Your task to perform on an android device: install app "Mercado Libre" Image 0: 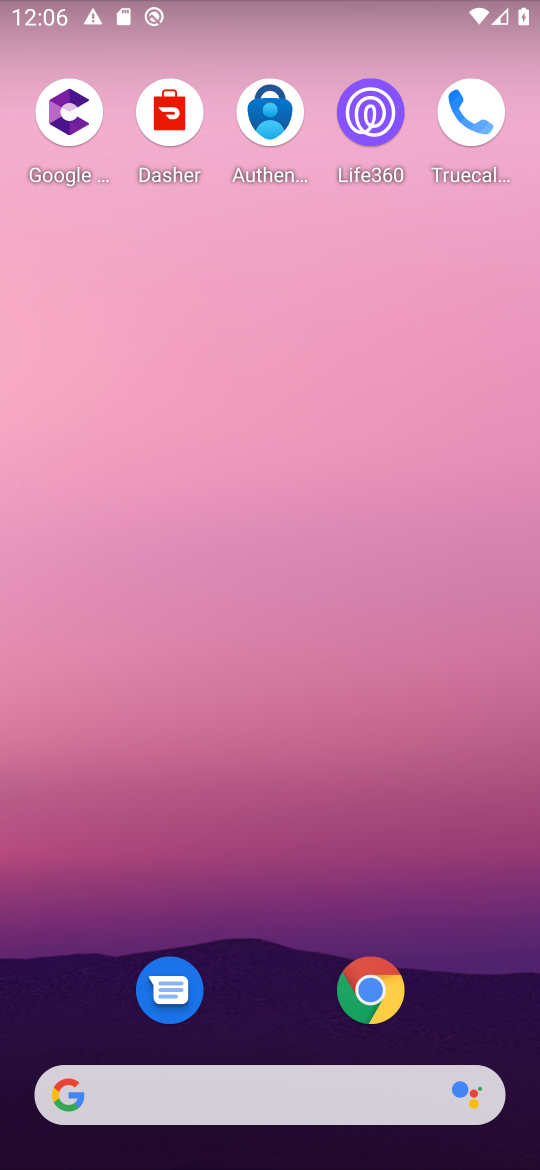
Step 0: drag from (263, 978) to (256, 359)
Your task to perform on an android device: install app "Mercado Libre" Image 1: 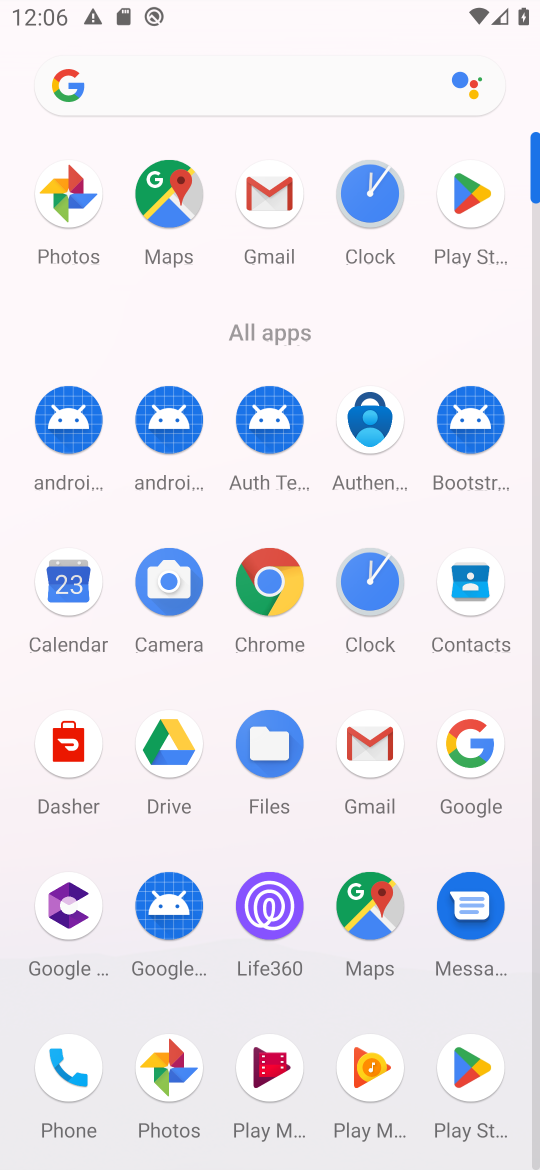
Step 1: click (462, 180)
Your task to perform on an android device: install app "Mercado Libre" Image 2: 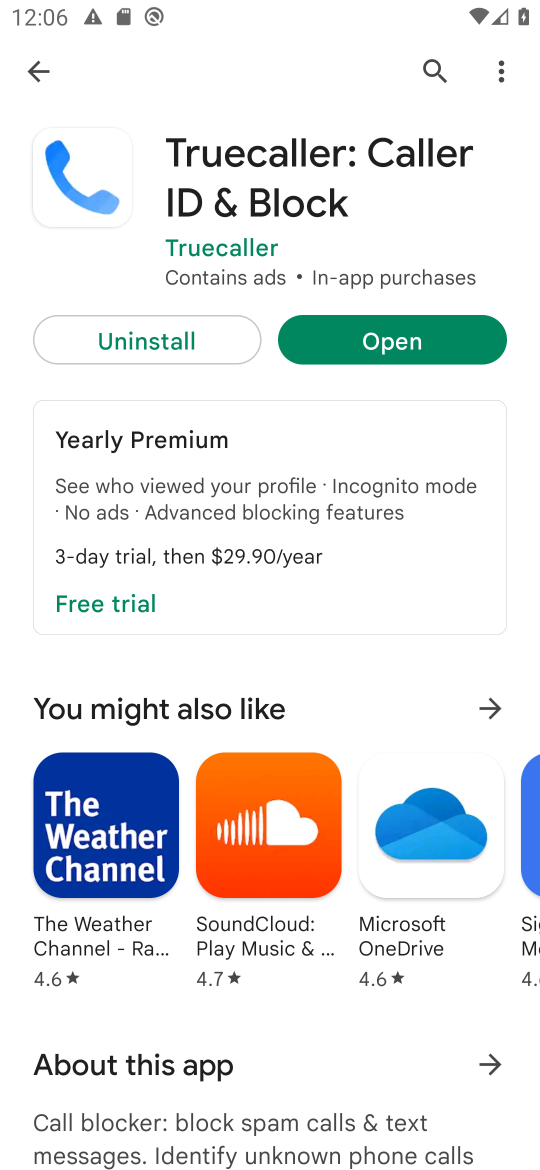
Step 2: click (56, 59)
Your task to perform on an android device: install app "Mercado Libre" Image 3: 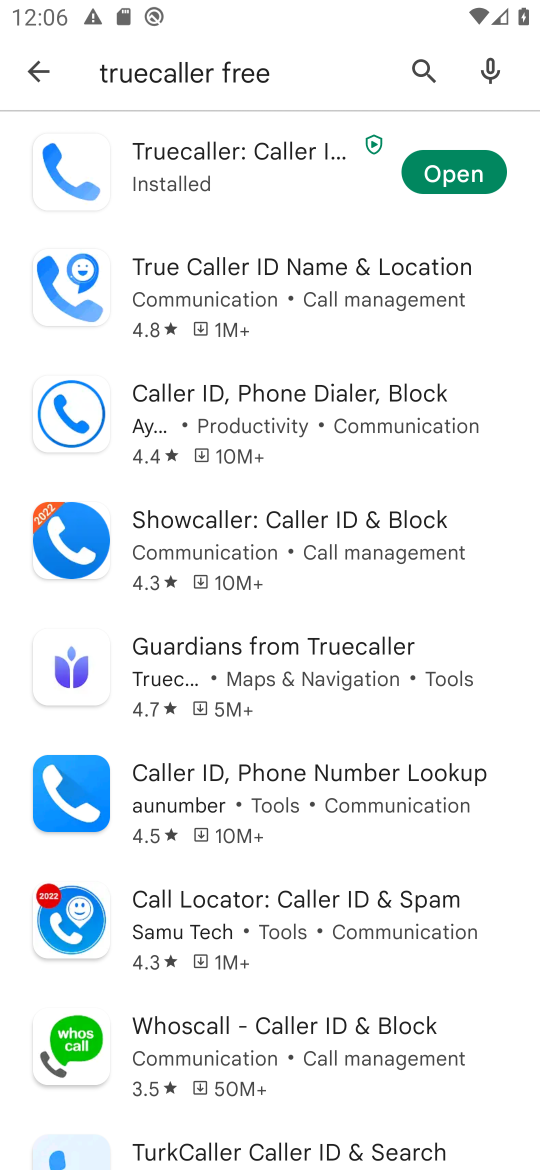
Step 3: click (31, 59)
Your task to perform on an android device: install app "Mercado Libre" Image 4: 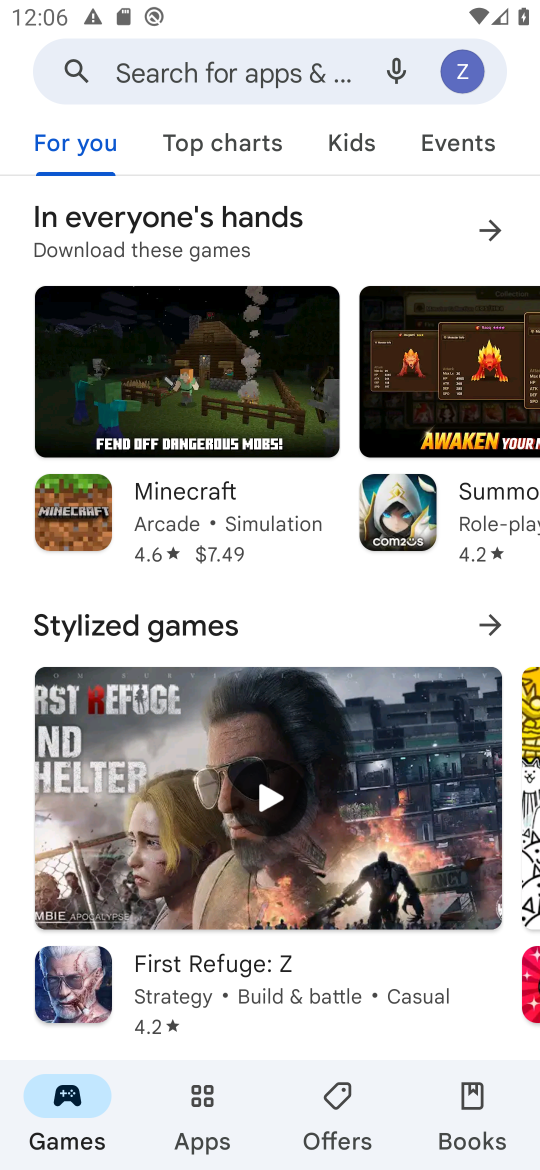
Step 4: click (272, 53)
Your task to perform on an android device: install app "Mercado Libre" Image 5: 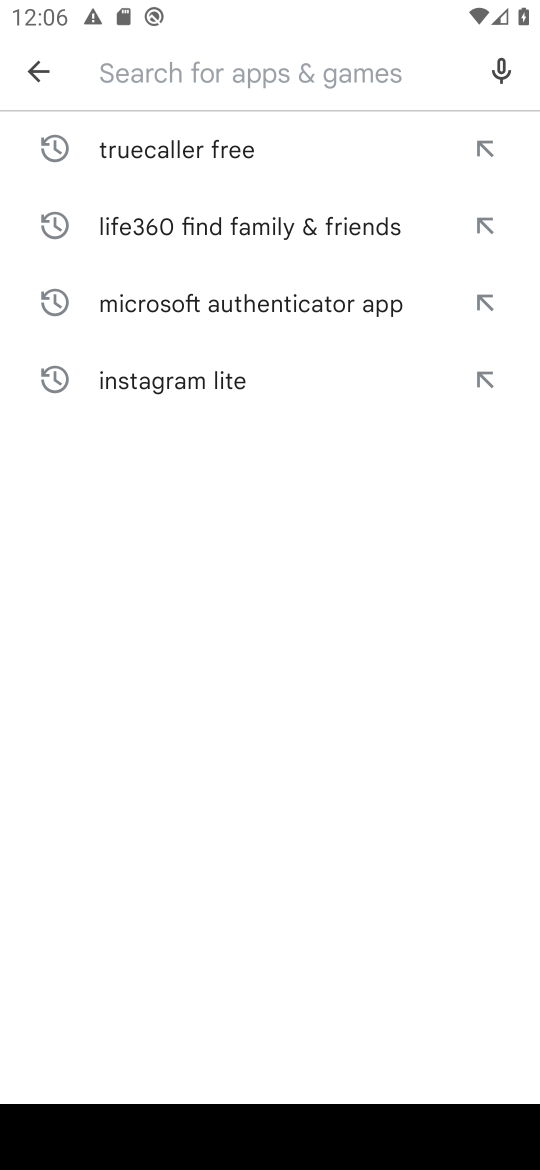
Step 5: type "Mercado Libre "
Your task to perform on an android device: install app "Mercado Libre" Image 6: 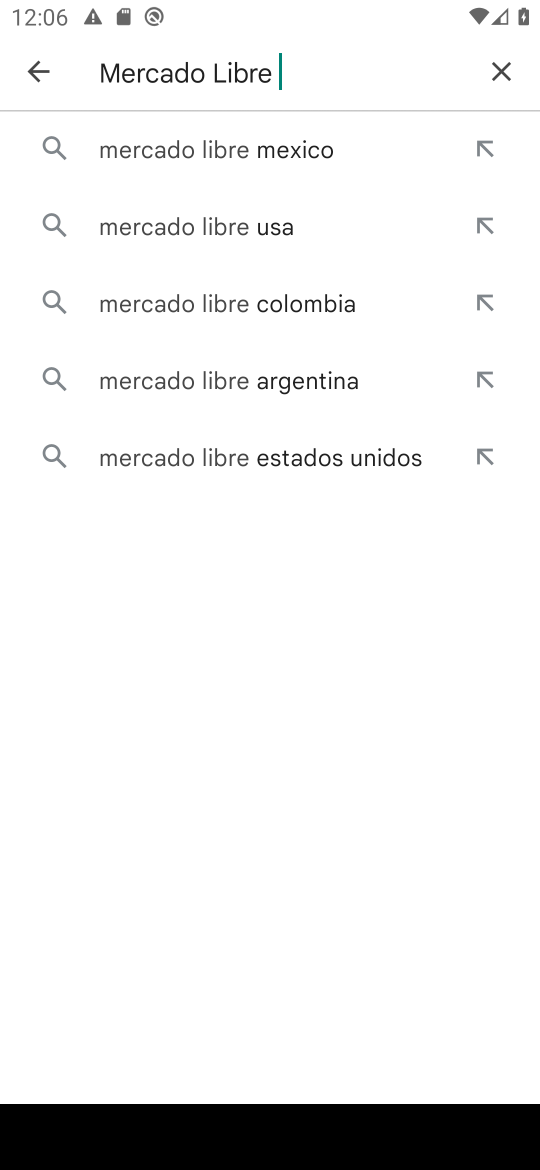
Step 6: click (212, 144)
Your task to perform on an android device: install app "Mercado Libre" Image 7: 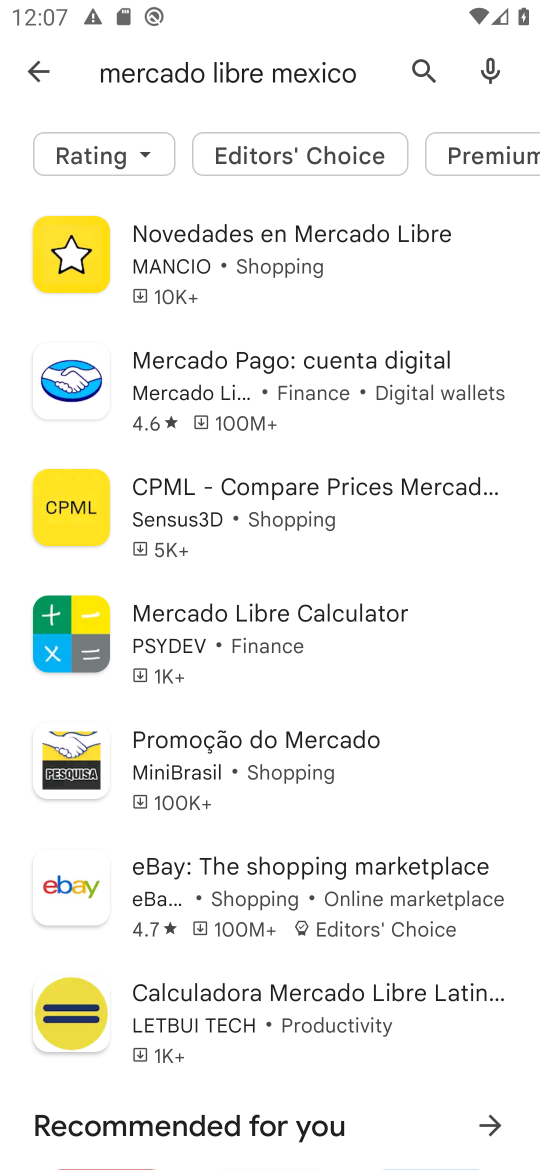
Step 7: drag from (263, 783) to (305, 1011)
Your task to perform on an android device: install app "Mercado Libre" Image 8: 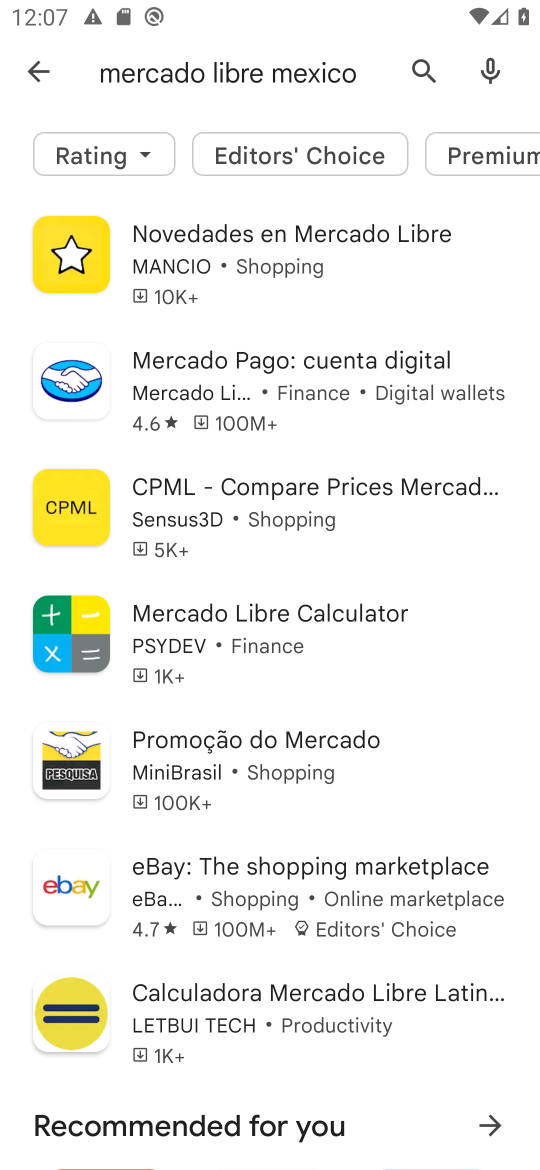
Step 8: click (314, 622)
Your task to perform on an android device: install app "Mercado Libre" Image 9: 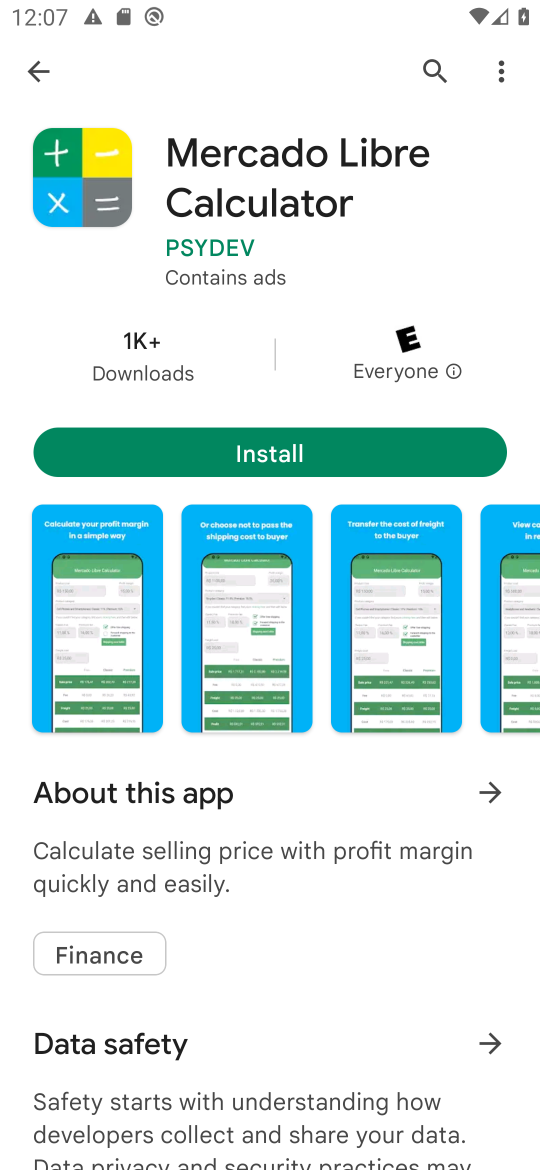
Step 9: click (57, 46)
Your task to perform on an android device: install app "Mercado Libre" Image 10: 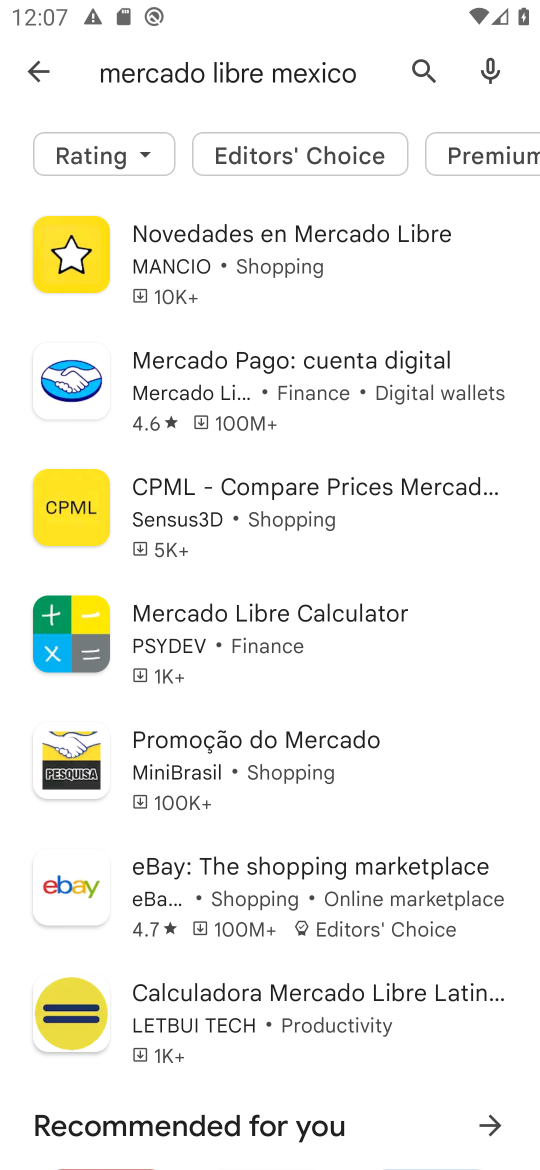
Step 10: click (401, 71)
Your task to perform on an android device: install app "Mercado Libre" Image 11: 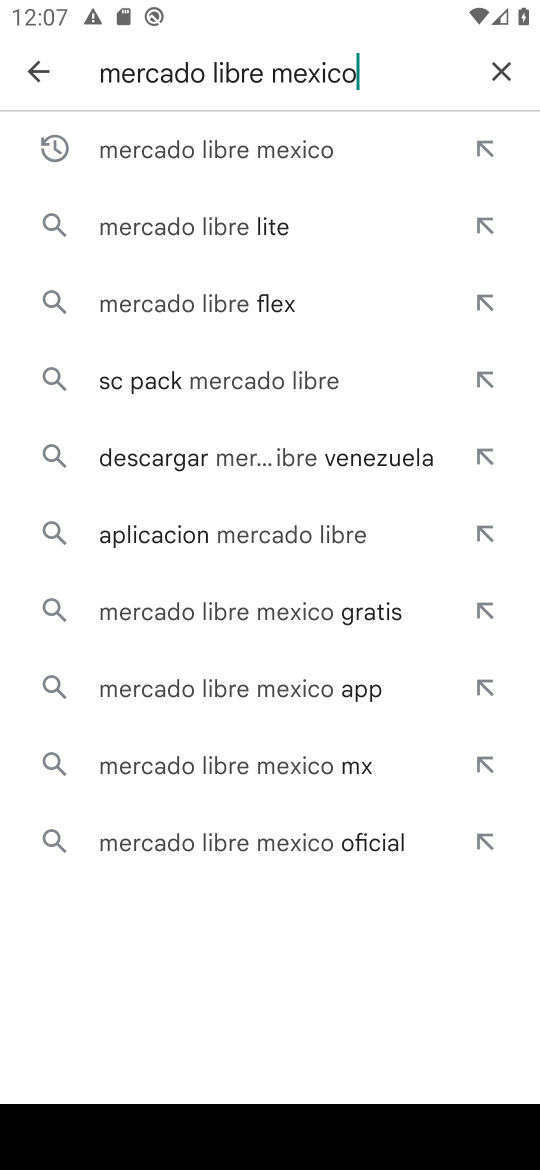
Step 11: click (281, 64)
Your task to perform on an android device: install app "Mercado Libre" Image 12: 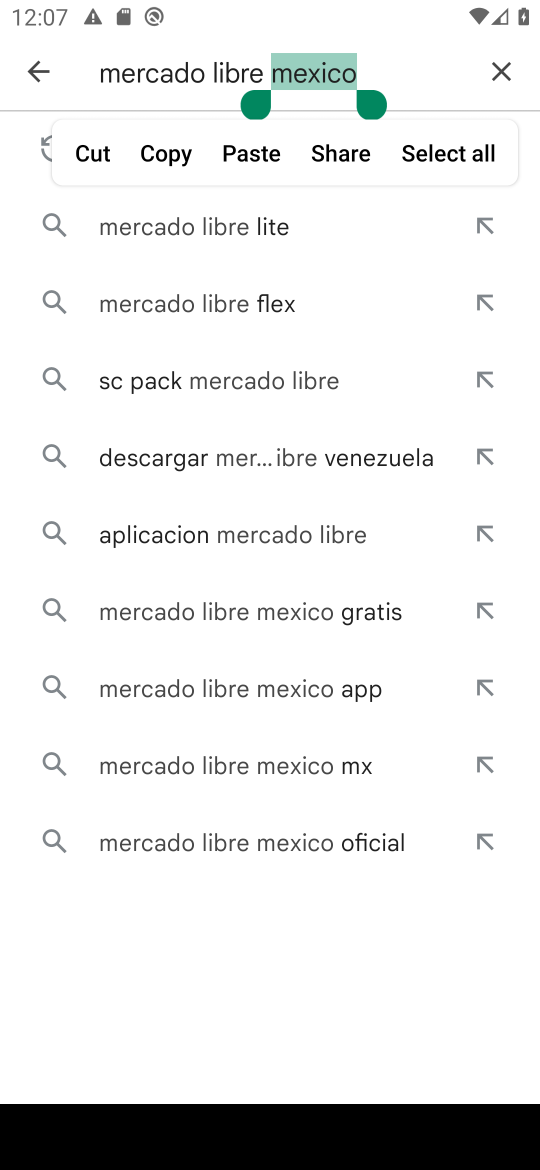
Step 12: click (107, 145)
Your task to perform on an android device: install app "Mercado Libre" Image 13: 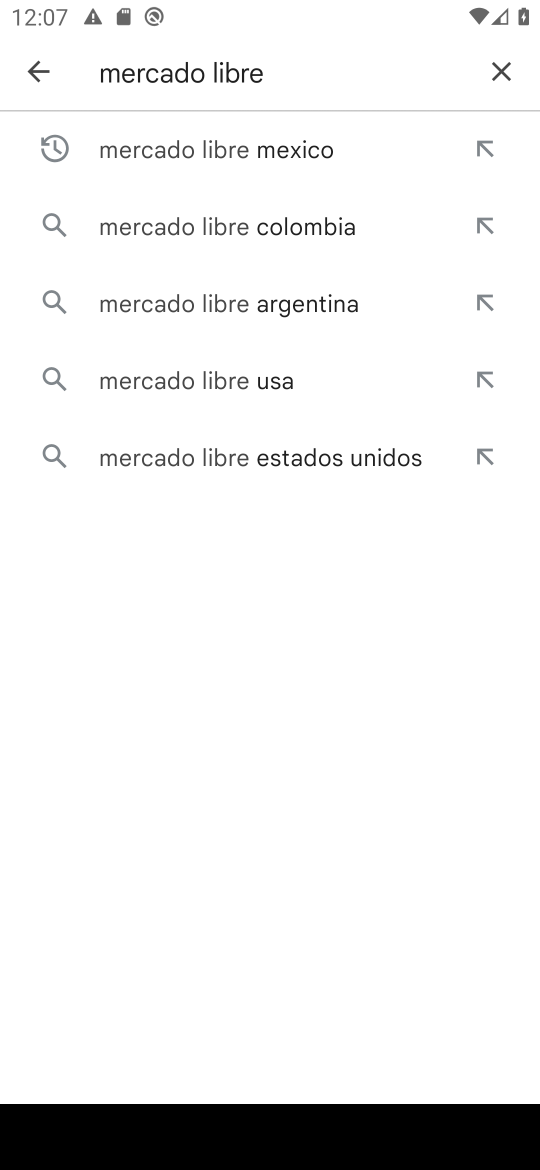
Step 13: click (249, 392)
Your task to perform on an android device: install app "Mercado Libre" Image 14: 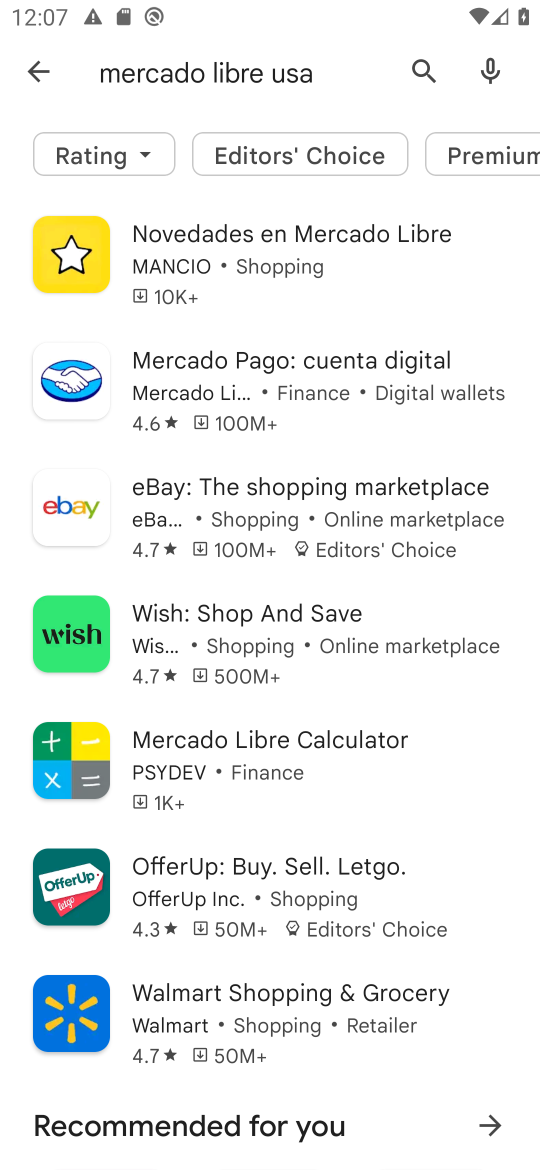
Step 14: task complete